Your task to perform on an android device: Open Youtube and go to "Your channel" Image 0: 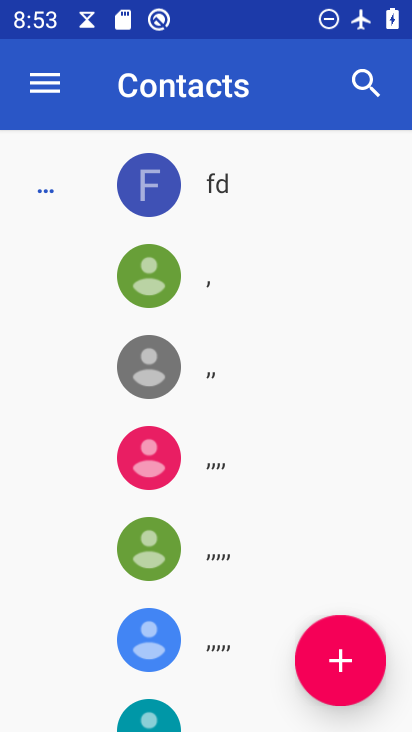
Step 0: press back button
Your task to perform on an android device: Open Youtube and go to "Your channel" Image 1: 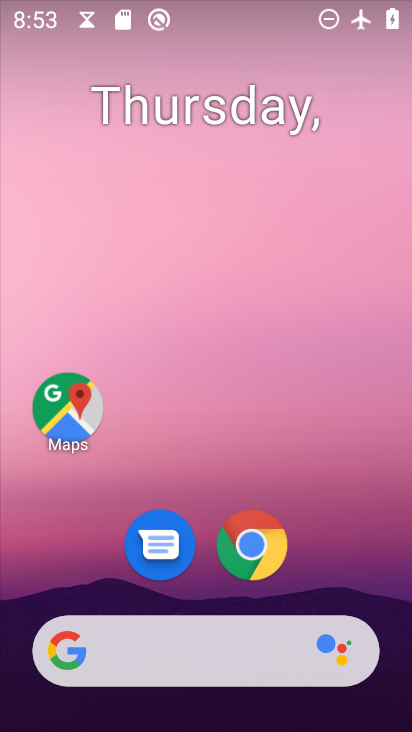
Step 1: drag from (328, 585) to (214, 139)
Your task to perform on an android device: Open Youtube and go to "Your channel" Image 2: 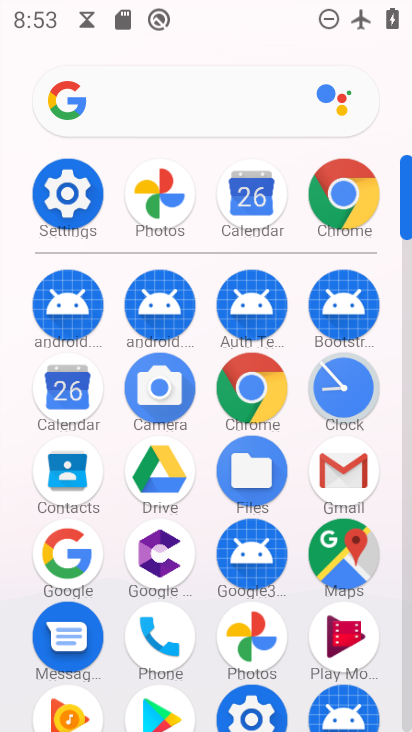
Step 2: drag from (206, 614) to (198, 428)
Your task to perform on an android device: Open Youtube and go to "Your channel" Image 3: 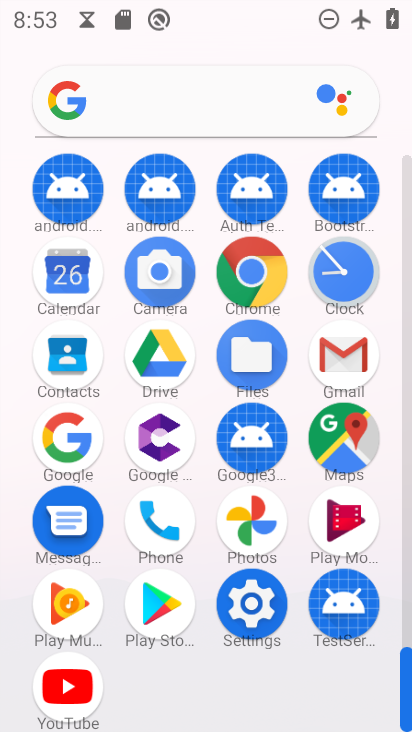
Step 3: click (68, 687)
Your task to perform on an android device: Open Youtube and go to "Your channel" Image 4: 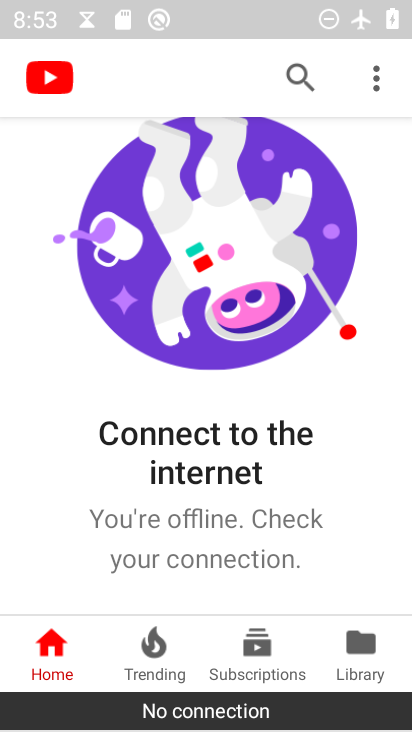
Step 4: task complete